Your task to perform on an android device: open a bookmark in the chrome app Image 0: 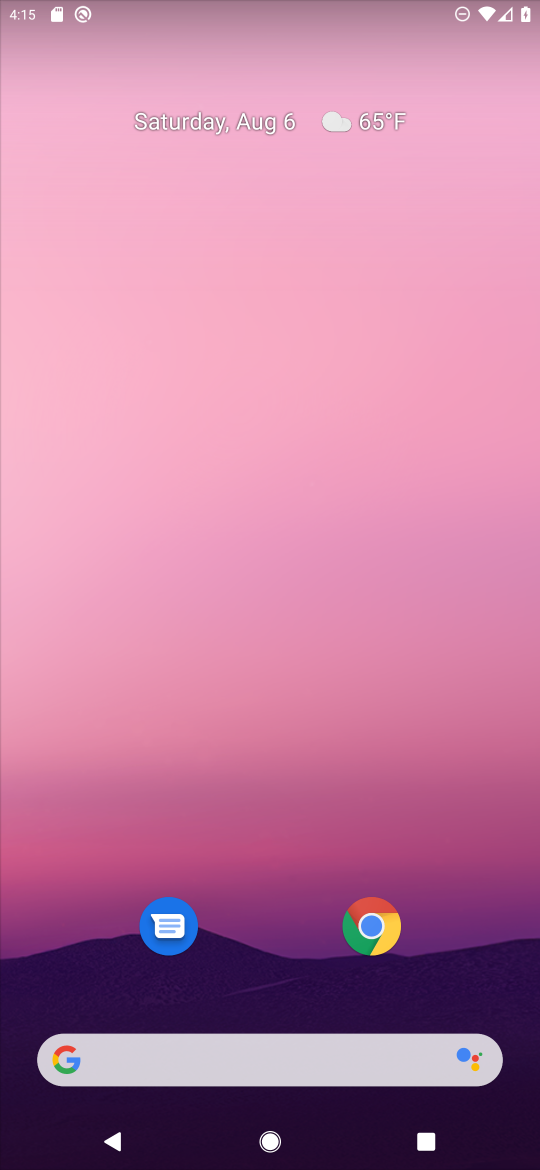
Step 0: click (353, 931)
Your task to perform on an android device: open a bookmark in the chrome app Image 1: 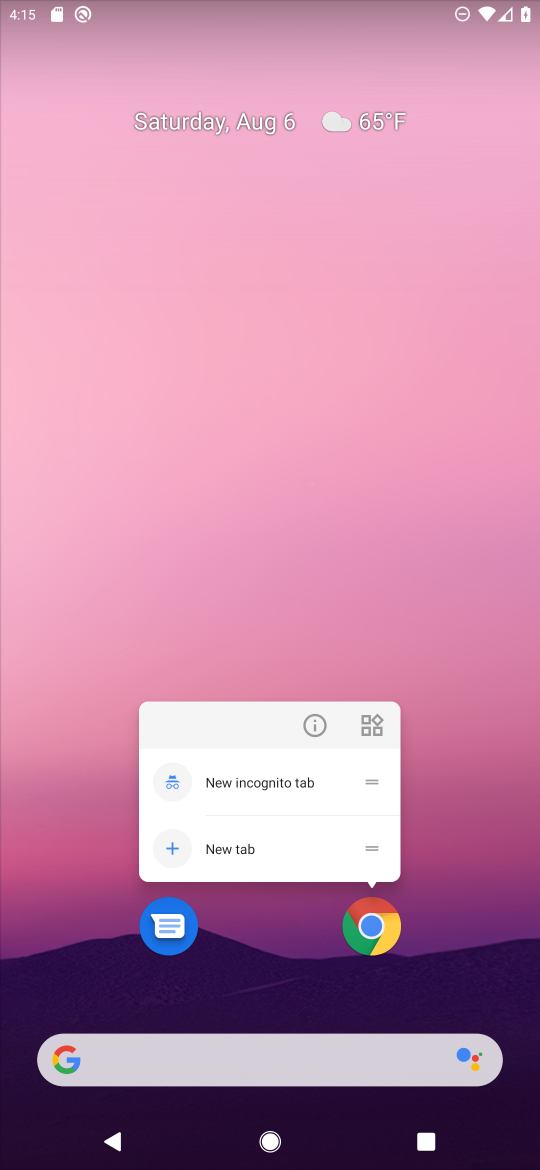
Step 1: click (357, 925)
Your task to perform on an android device: open a bookmark in the chrome app Image 2: 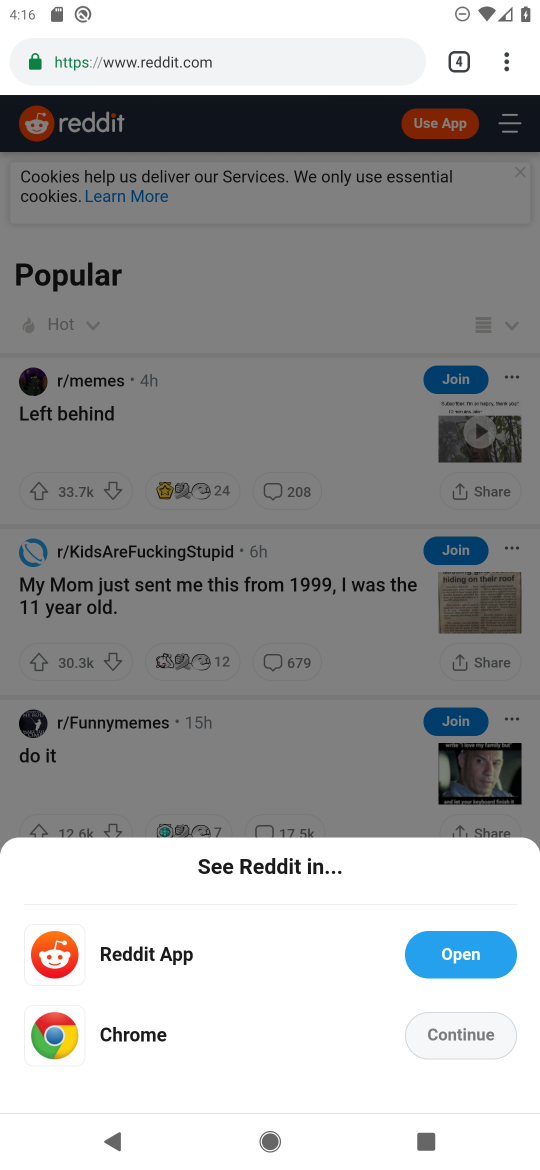
Step 2: click (444, 1022)
Your task to perform on an android device: open a bookmark in the chrome app Image 3: 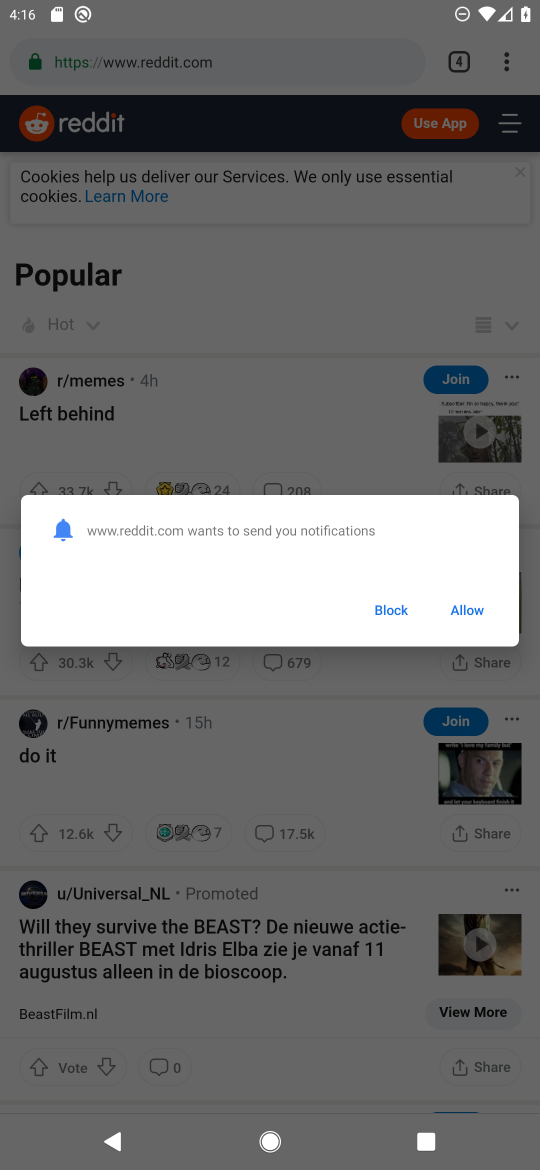
Step 3: click (463, 616)
Your task to perform on an android device: open a bookmark in the chrome app Image 4: 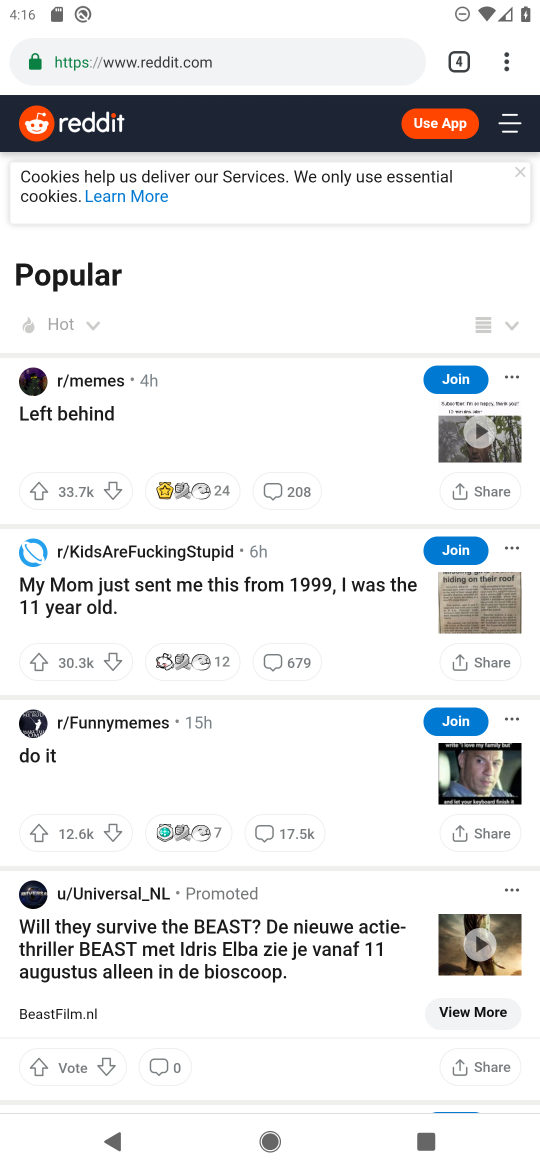
Step 4: click (501, 60)
Your task to perform on an android device: open a bookmark in the chrome app Image 5: 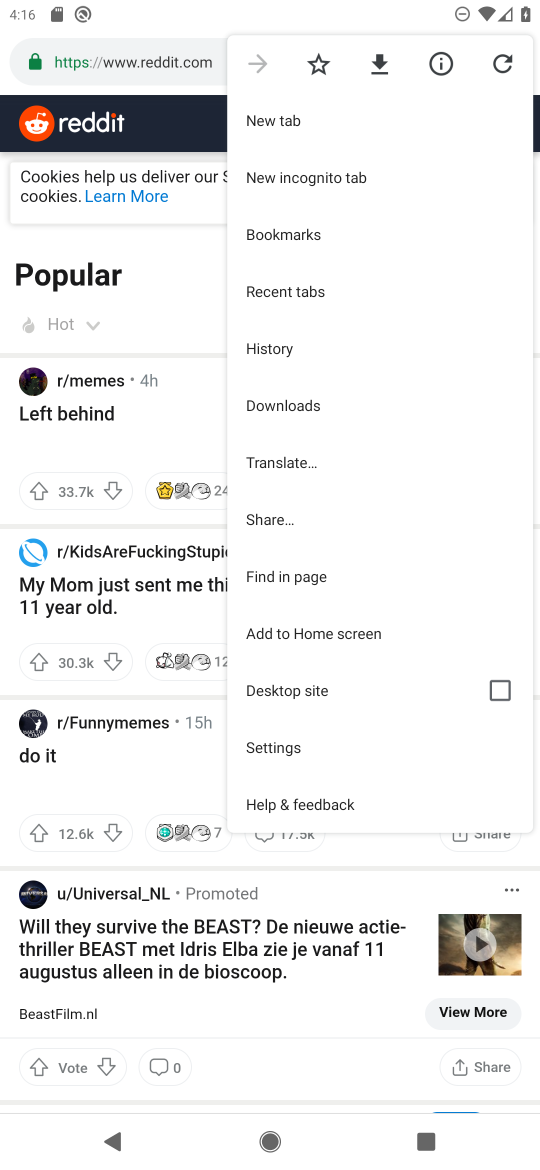
Step 5: click (346, 236)
Your task to perform on an android device: open a bookmark in the chrome app Image 6: 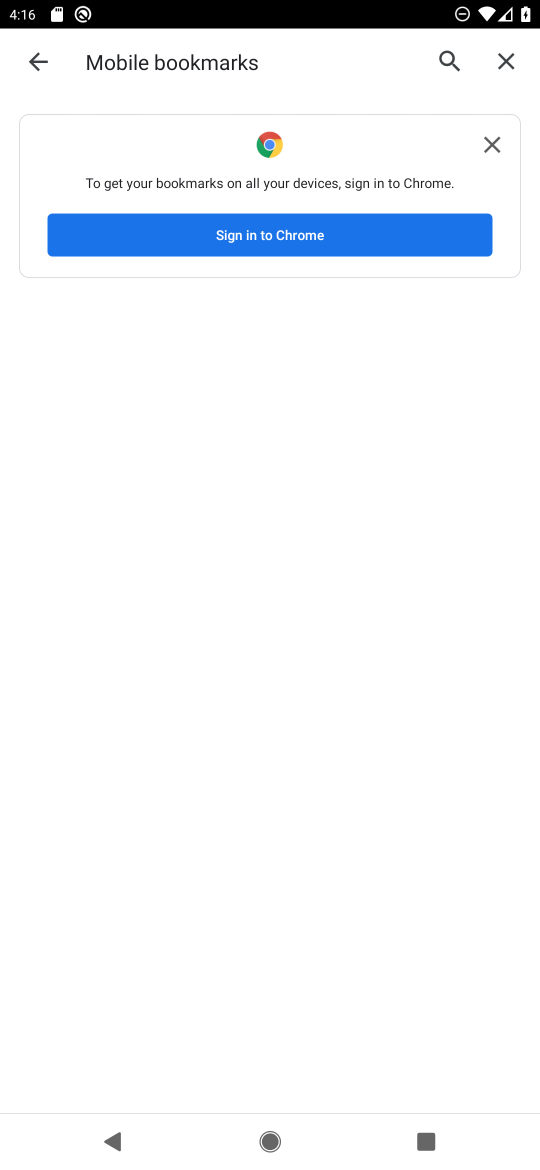
Step 6: task complete